Your task to perform on an android device: turn on airplane mode Image 0: 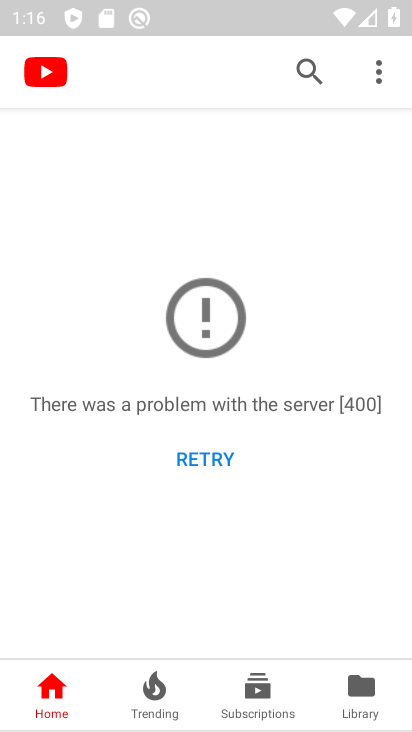
Step 0: press home button
Your task to perform on an android device: turn on airplane mode Image 1: 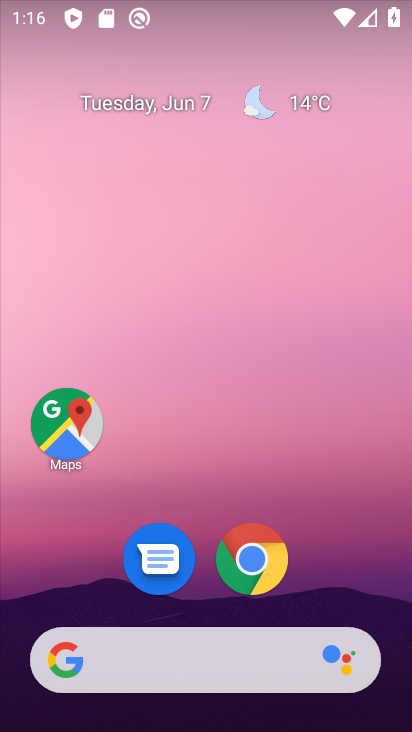
Step 1: drag from (338, 559) to (362, 64)
Your task to perform on an android device: turn on airplane mode Image 2: 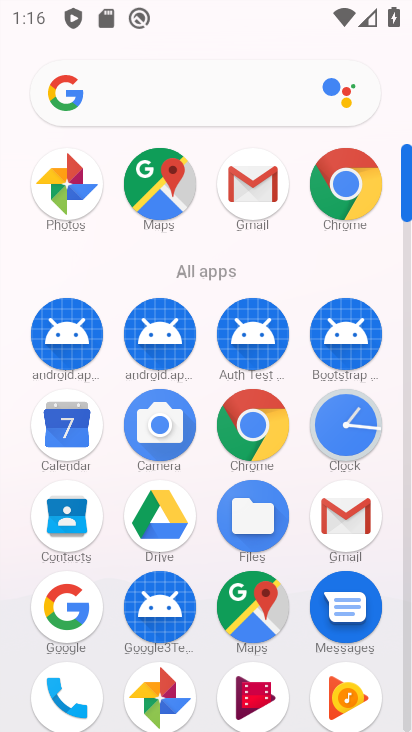
Step 2: drag from (382, 539) to (408, 170)
Your task to perform on an android device: turn on airplane mode Image 3: 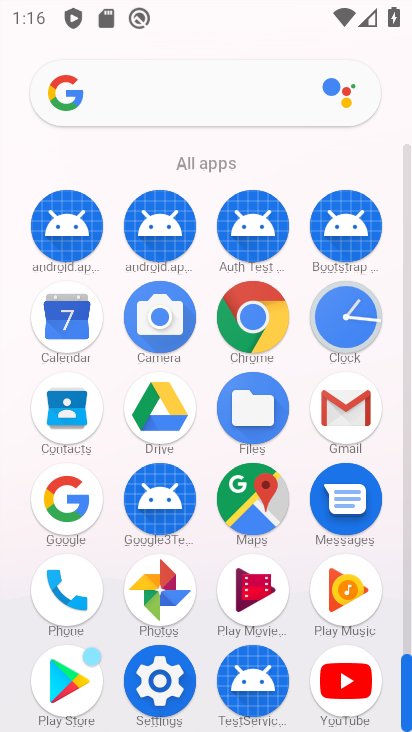
Step 3: click (176, 673)
Your task to perform on an android device: turn on airplane mode Image 4: 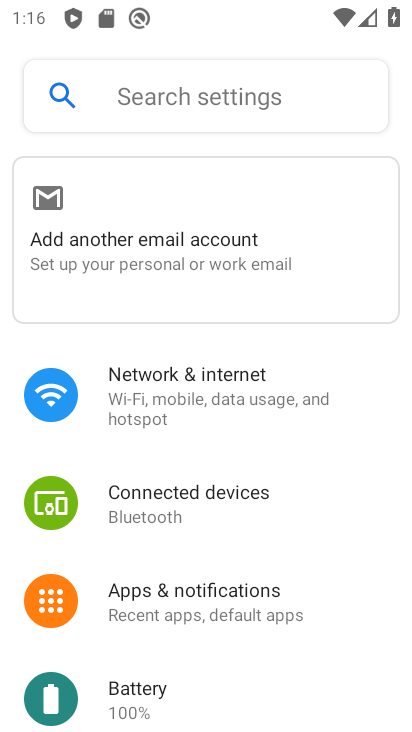
Step 4: click (155, 380)
Your task to perform on an android device: turn on airplane mode Image 5: 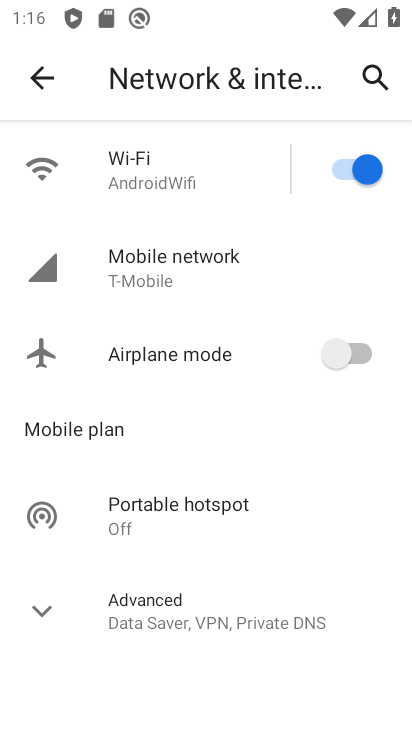
Step 5: click (359, 354)
Your task to perform on an android device: turn on airplane mode Image 6: 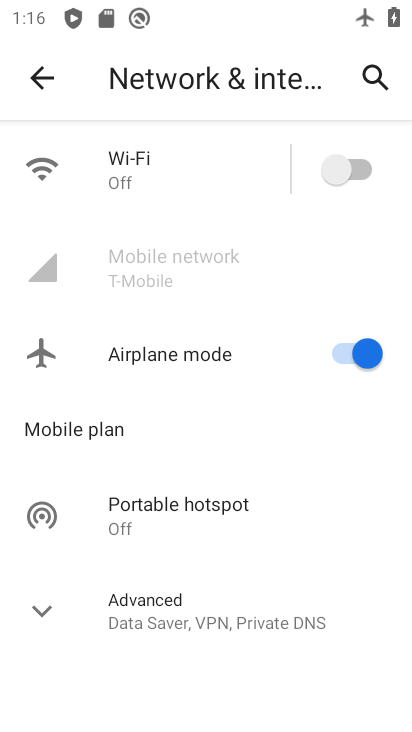
Step 6: task complete